Your task to perform on an android device: create a new album in the google photos Image 0: 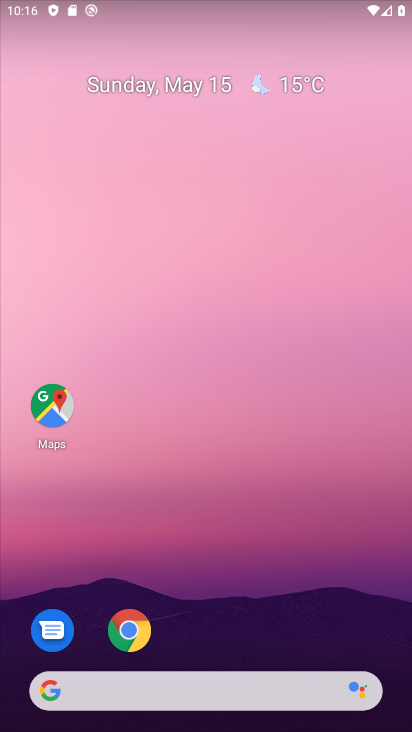
Step 0: drag from (207, 715) to (213, 158)
Your task to perform on an android device: create a new album in the google photos Image 1: 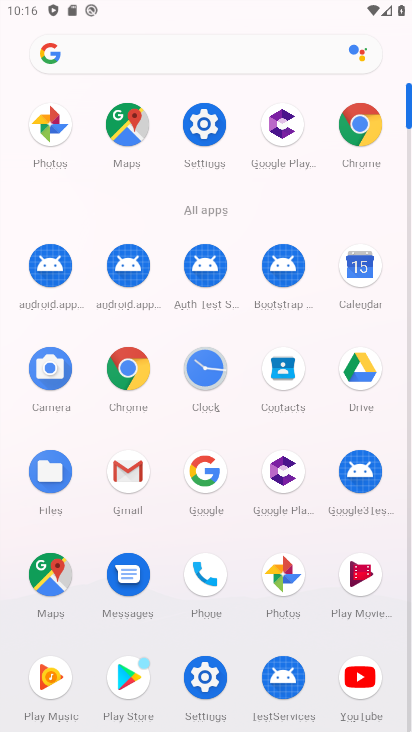
Step 1: click (290, 579)
Your task to perform on an android device: create a new album in the google photos Image 2: 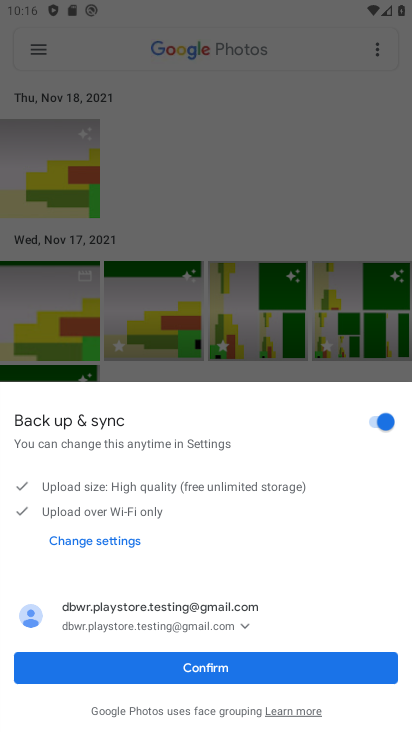
Step 2: click (221, 672)
Your task to perform on an android device: create a new album in the google photos Image 3: 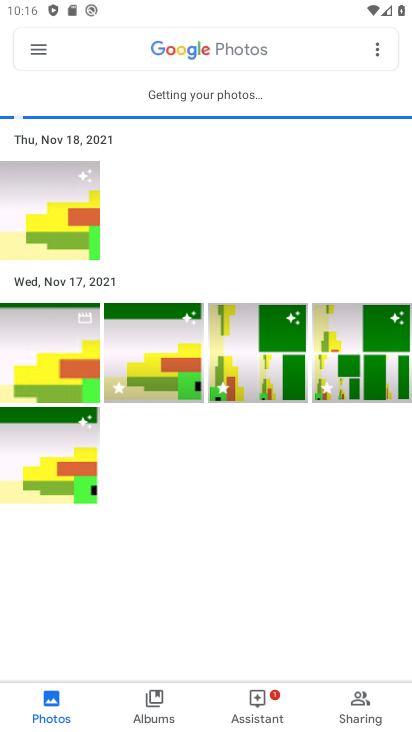
Step 3: click (375, 44)
Your task to perform on an android device: create a new album in the google photos Image 4: 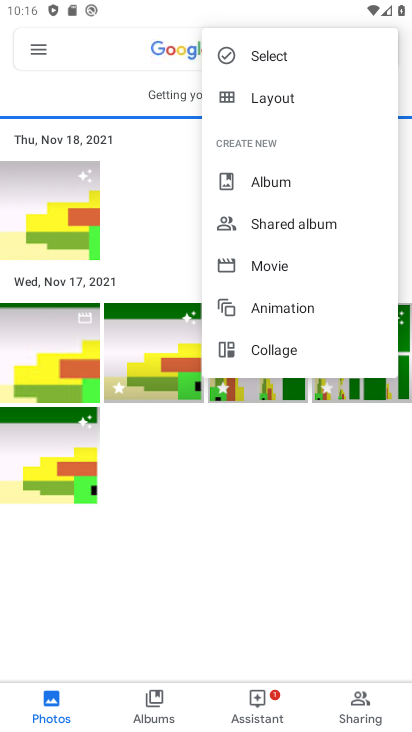
Step 4: click (273, 183)
Your task to perform on an android device: create a new album in the google photos Image 5: 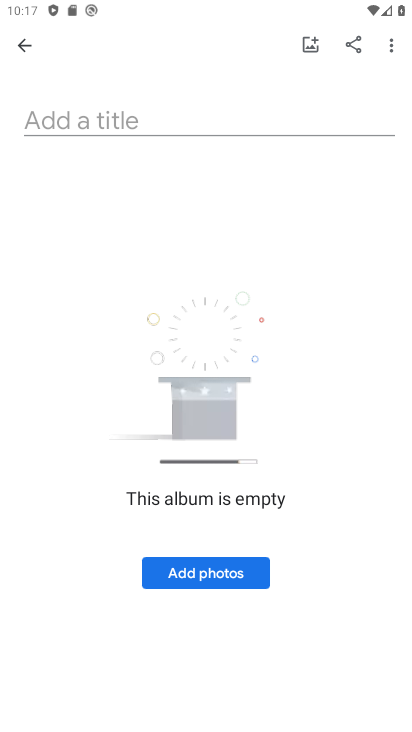
Step 5: click (185, 100)
Your task to perform on an android device: create a new album in the google photos Image 6: 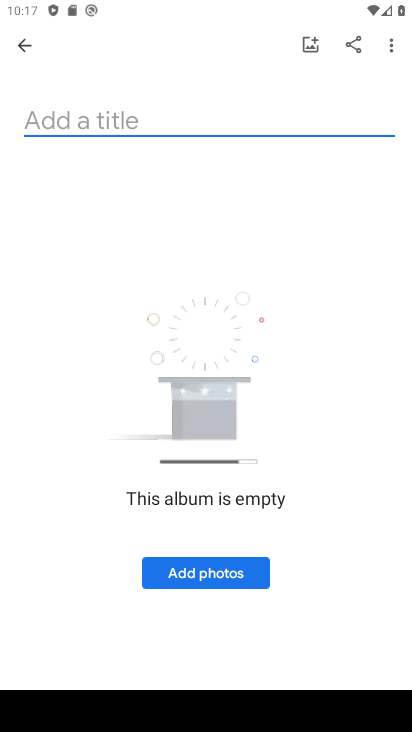
Step 6: type "young chii"
Your task to perform on an android device: create a new album in the google photos Image 7: 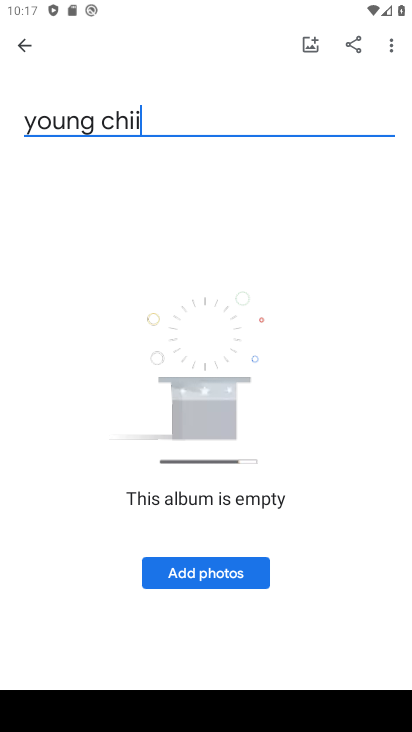
Step 7: click (212, 555)
Your task to perform on an android device: create a new album in the google photos Image 8: 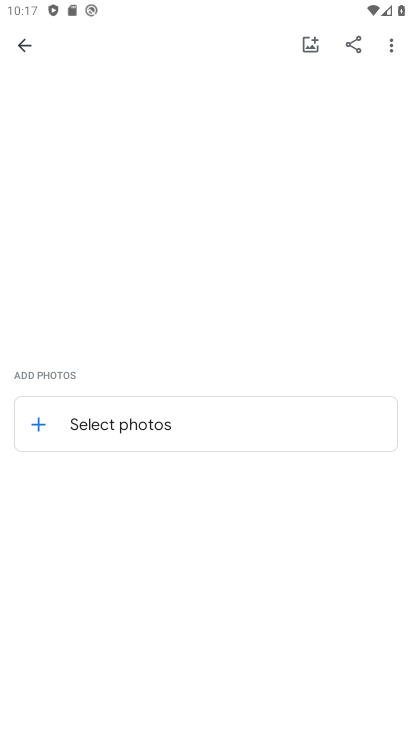
Step 8: click (105, 423)
Your task to perform on an android device: create a new album in the google photos Image 9: 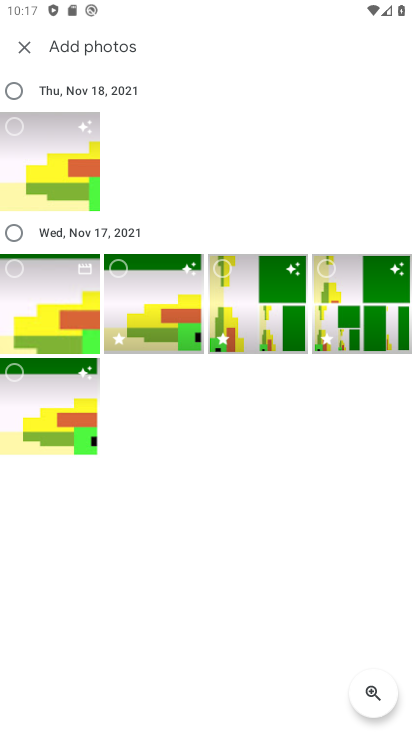
Step 9: click (124, 263)
Your task to perform on an android device: create a new album in the google photos Image 10: 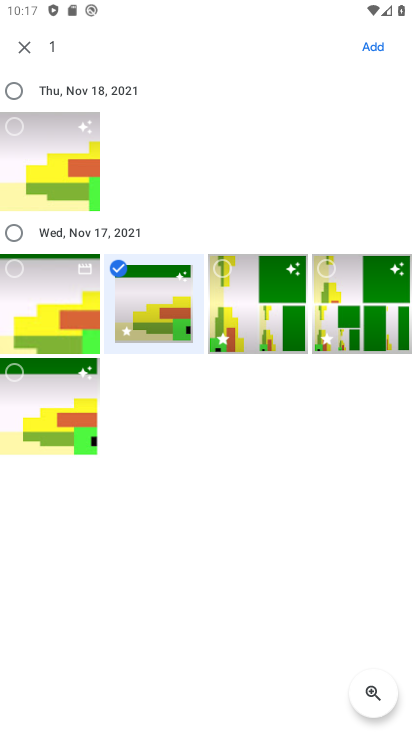
Step 10: click (374, 44)
Your task to perform on an android device: create a new album in the google photos Image 11: 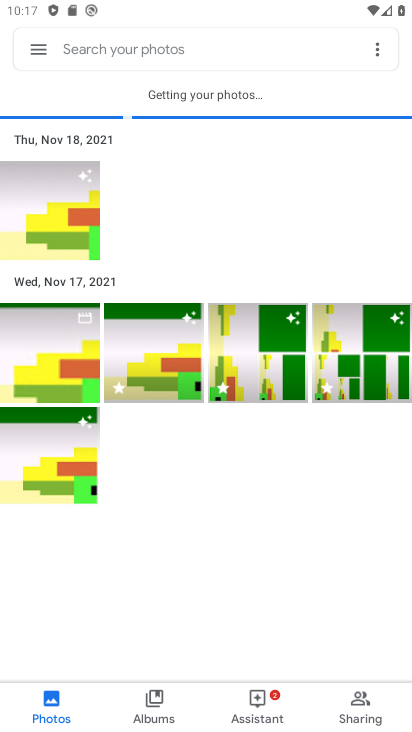
Step 11: task complete